Your task to perform on an android device: Open Amazon Image 0: 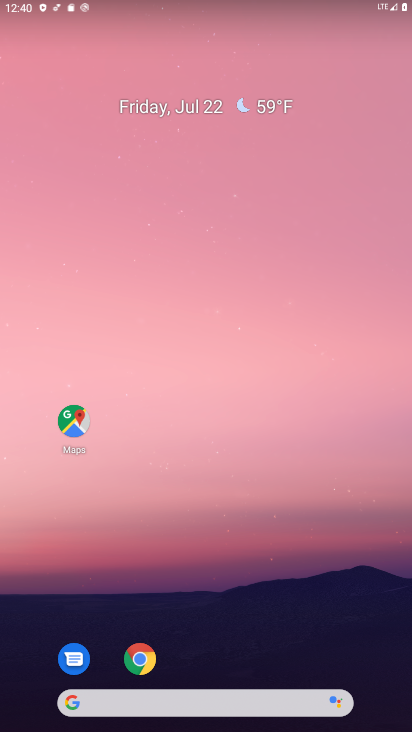
Step 0: click (133, 654)
Your task to perform on an android device: Open Amazon Image 1: 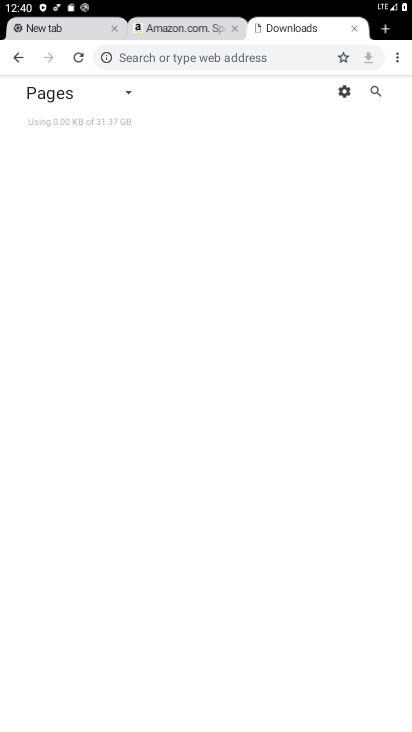
Step 1: click (383, 32)
Your task to perform on an android device: Open Amazon Image 2: 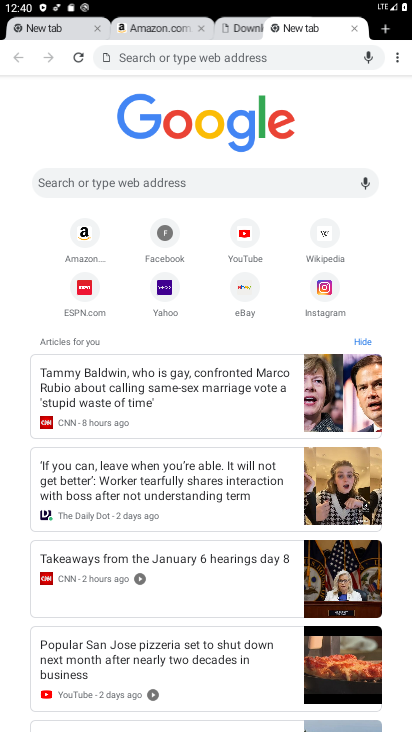
Step 2: click (87, 239)
Your task to perform on an android device: Open Amazon Image 3: 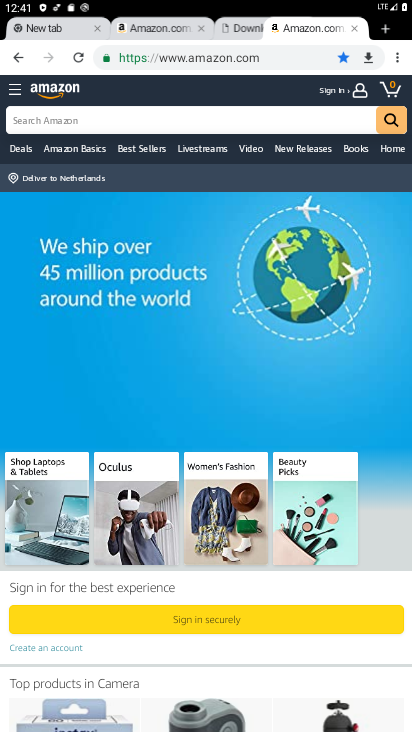
Step 3: task complete